Your task to perform on an android device: open device folders in google photos Image 0: 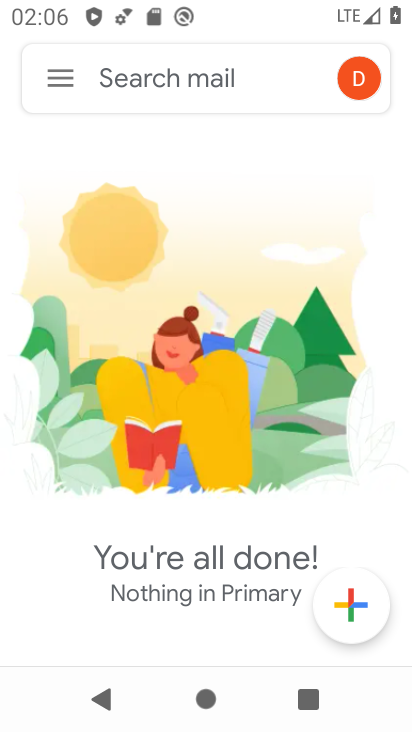
Step 0: press home button
Your task to perform on an android device: open device folders in google photos Image 1: 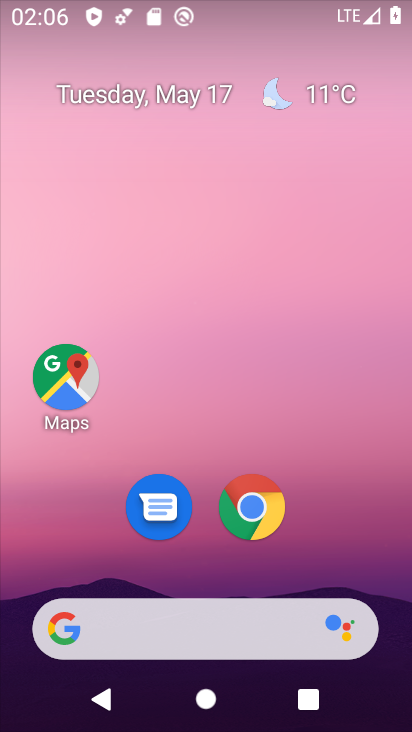
Step 1: drag from (221, 548) to (251, 106)
Your task to perform on an android device: open device folders in google photos Image 2: 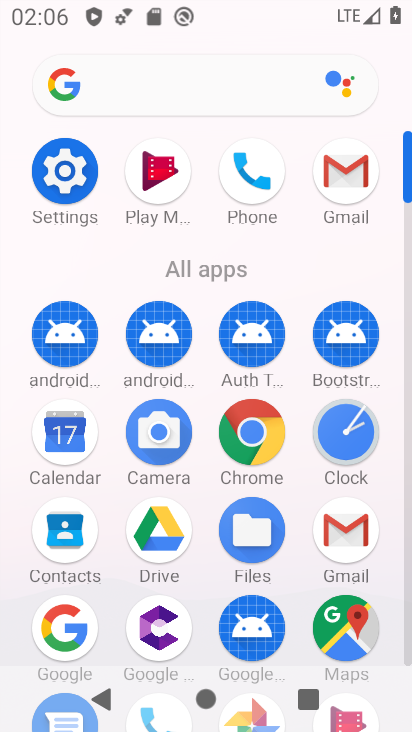
Step 2: drag from (207, 608) to (209, 169)
Your task to perform on an android device: open device folders in google photos Image 3: 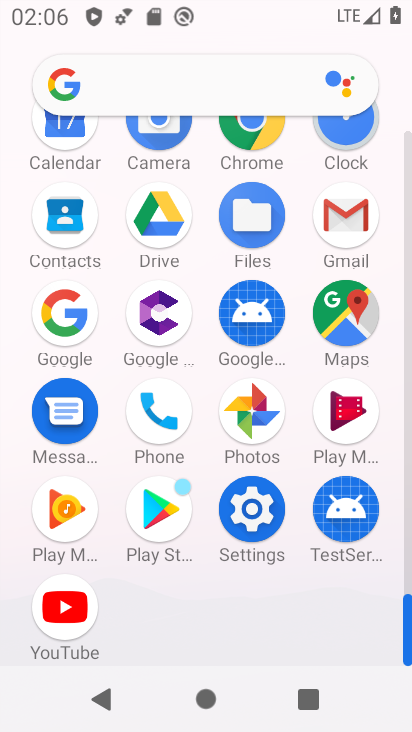
Step 3: click (262, 411)
Your task to perform on an android device: open device folders in google photos Image 4: 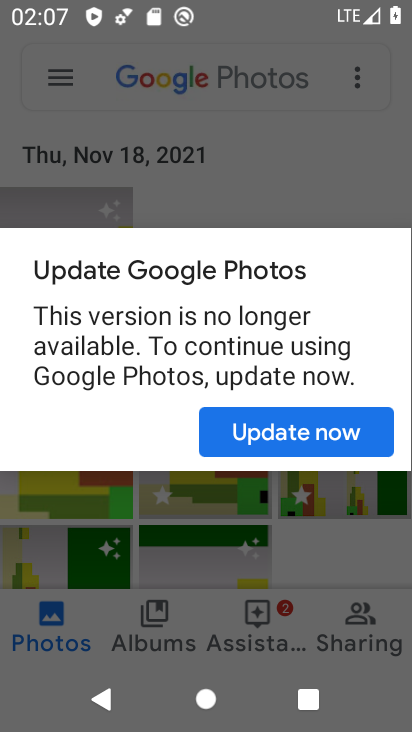
Step 4: click (300, 431)
Your task to perform on an android device: open device folders in google photos Image 5: 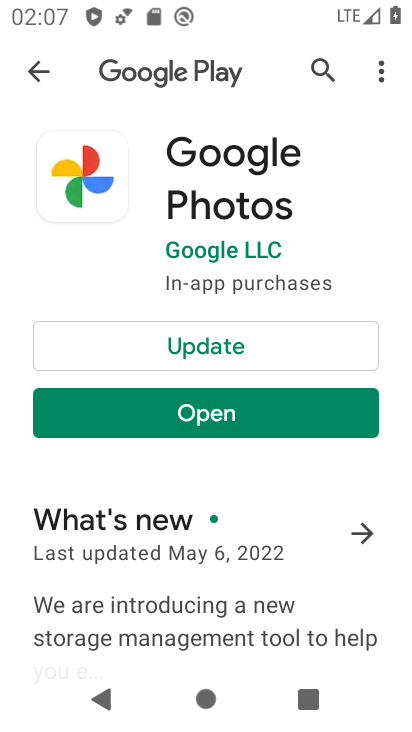
Step 5: click (300, 431)
Your task to perform on an android device: open device folders in google photos Image 6: 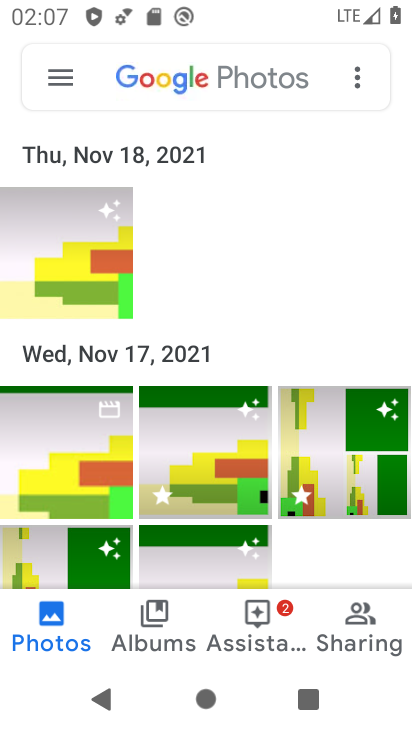
Step 6: click (71, 93)
Your task to perform on an android device: open device folders in google photos Image 7: 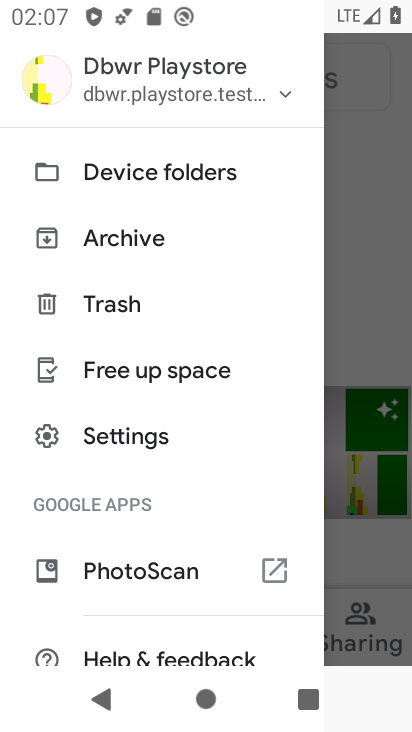
Step 7: click (173, 152)
Your task to perform on an android device: open device folders in google photos Image 8: 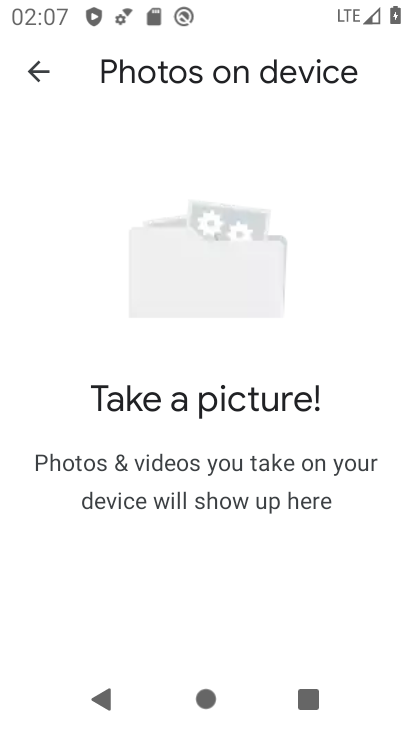
Step 8: task complete